Your task to perform on an android device: check google app version Image 0: 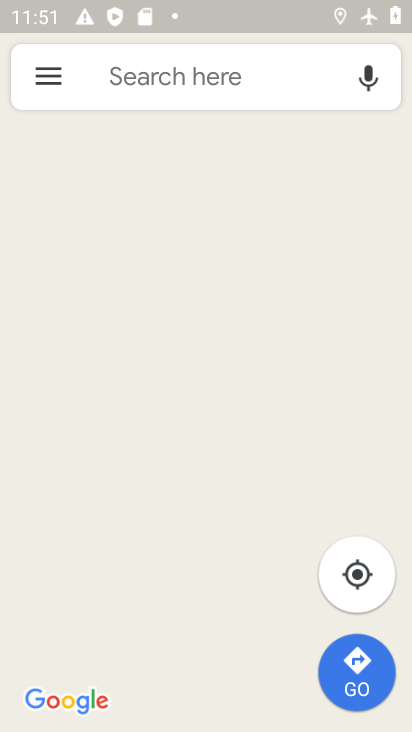
Step 0: press home button
Your task to perform on an android device: check google app version Image 1: 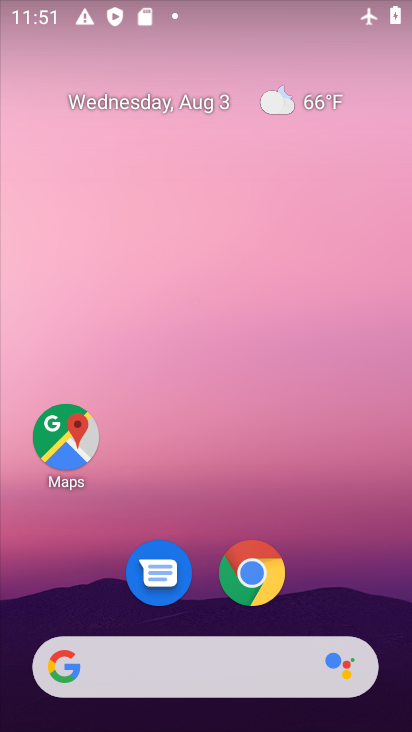
Step 1: drag from (329, 459) to (279, 102)
Your task to perform on an android device: check google app version Image 2: 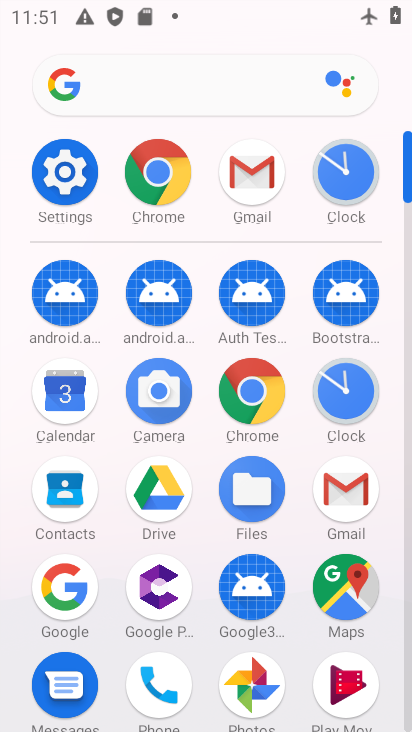
Step 2: drag from (298, 538) to (318, 240)
Your task to perform on an android device: check google app version Image 3: 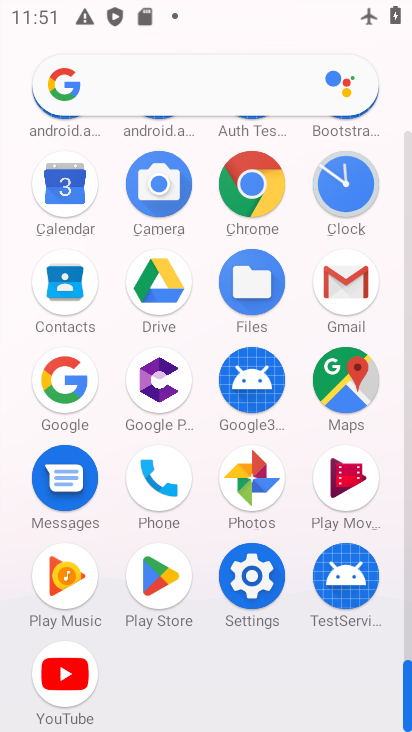
Step 3: click (69, 390)
Your task to perform on an android device: check google app version Image 4: 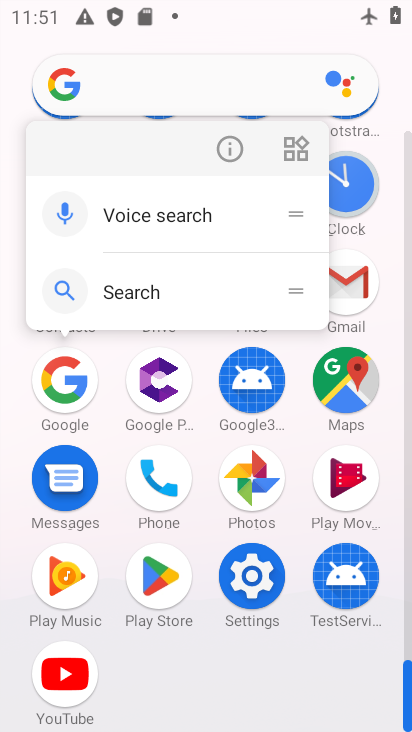
Step 4: click (231, 157)
Your task to perform on an android device: check google app version Image 5: 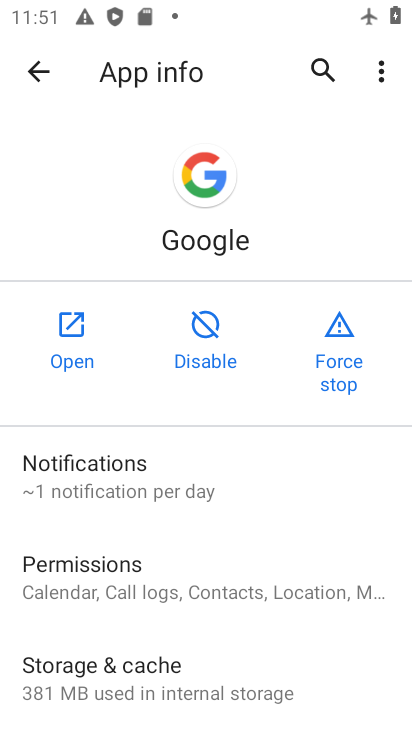
Step 5: drag from (225, 518) to (253, 27)
Your task to perform on an android device: check google app version Image 6: 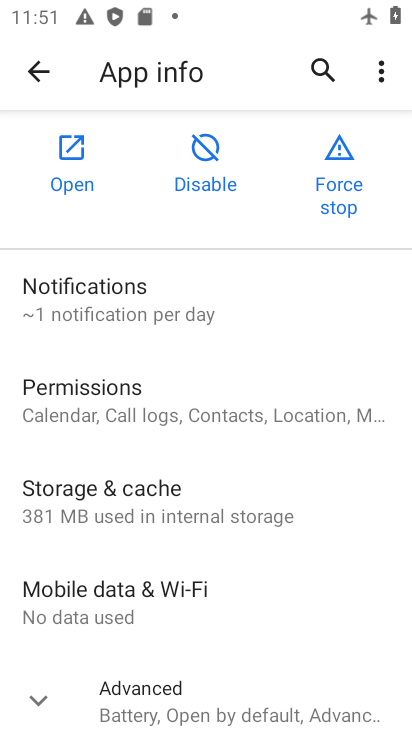
Step 6: click (233, 694)
Your task to perform on an android device: check google app version Image 7: 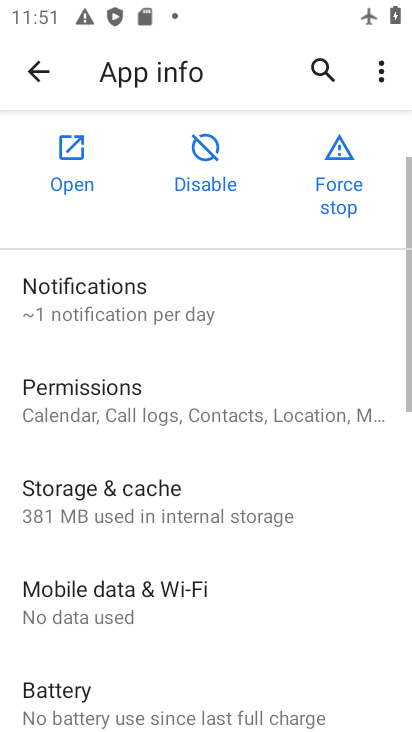
Step 7: task complete